Your task to perform on an android device: Play the latest video from the Wall Street Journal Image 0: 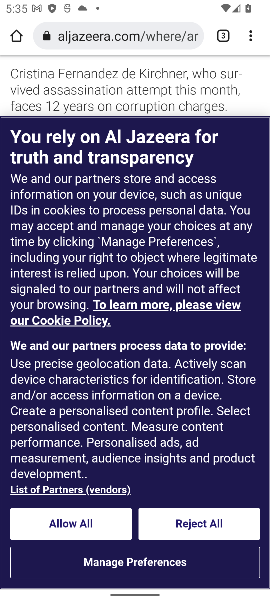
Step 0: press home button
Your task to perform on an android device: Play the latest video from the Wall Street Journal Image 1: 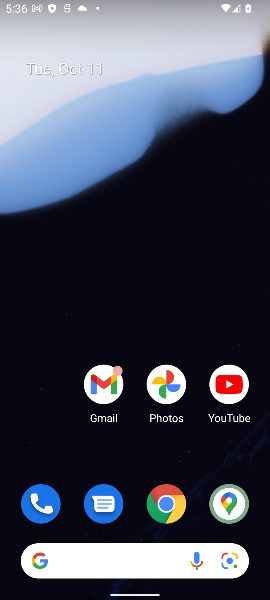
Step 1: click (223, 382)
Your task to perform on an android device: Play the latest video from the Wall Street Journal Image 2: 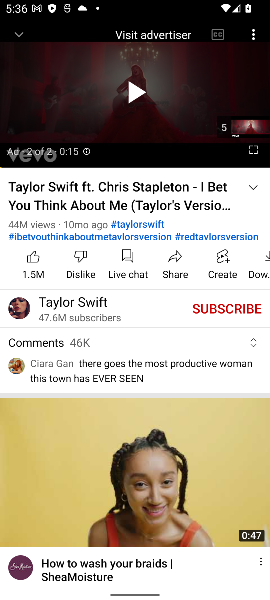
Step 2: click (17, 35)
Your task to perform on an android device: Play the latest video from the Wall Street Journal Image 3: 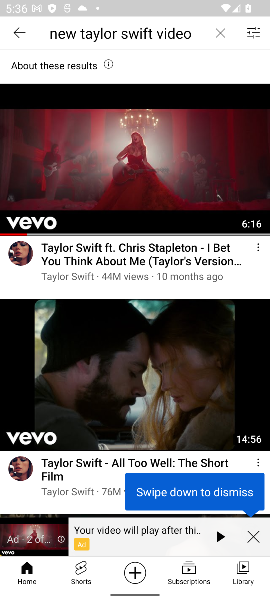
Step 3: click (222, 30)
Your task to perform on an android device: Play the latest video from the Wall Street Journal Image 4: 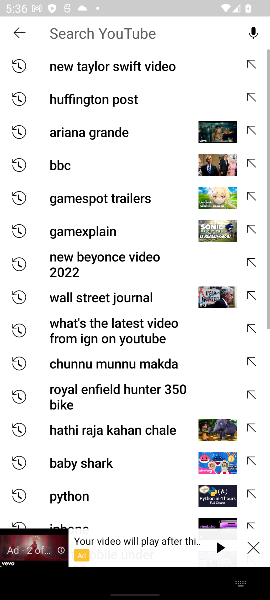
Step 4: click (90, 30)
Your task to perform on an android device: Play the latest video from the Wall Street Journal Image 5: 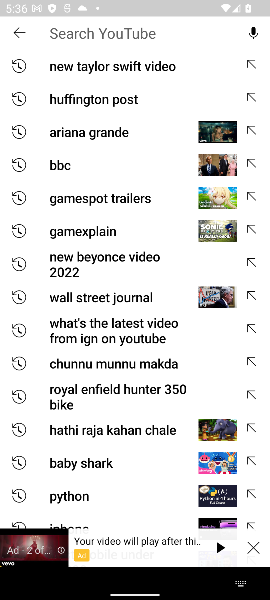
Step 5: type " Wall Street Journal"
Your task to perform on an android device: Play the latest video from the Wall Street Journal Image 6: 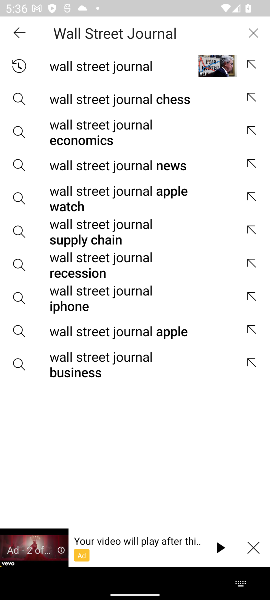
Step 6: click (83, 72)
Your task to perform on an android device: Play the latest video from the Wall Street Journal Image 7: 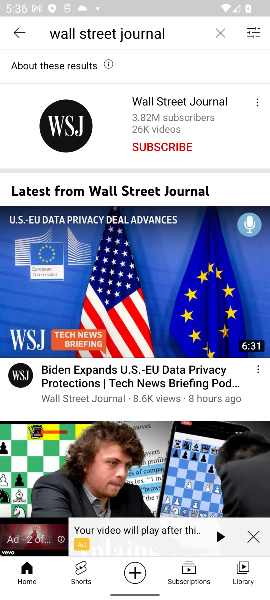
Step 7: click (138, 264)
Your task to perform on an android device: Play the latest video from the Wall Street Journal Image 8: 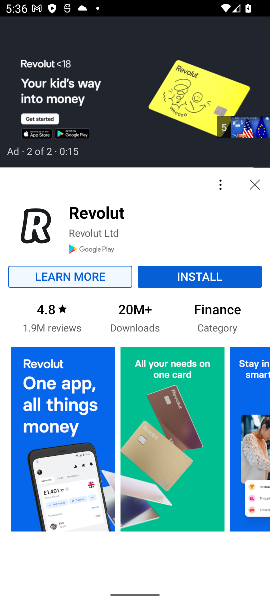
Step 8: click (136, 93)
Your task to perform on an android device: Play the latest video from the Wall Street Journal Image 9: 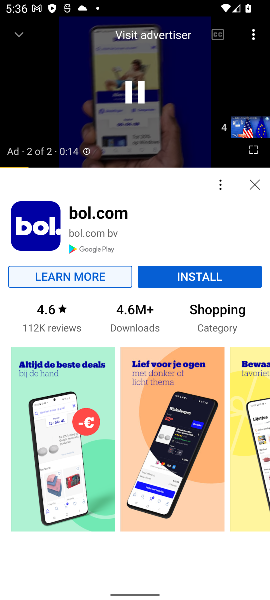
Step 9: task complete